Your task to perform on an android device: Clear all items from cart on bestbuy. Image 0: 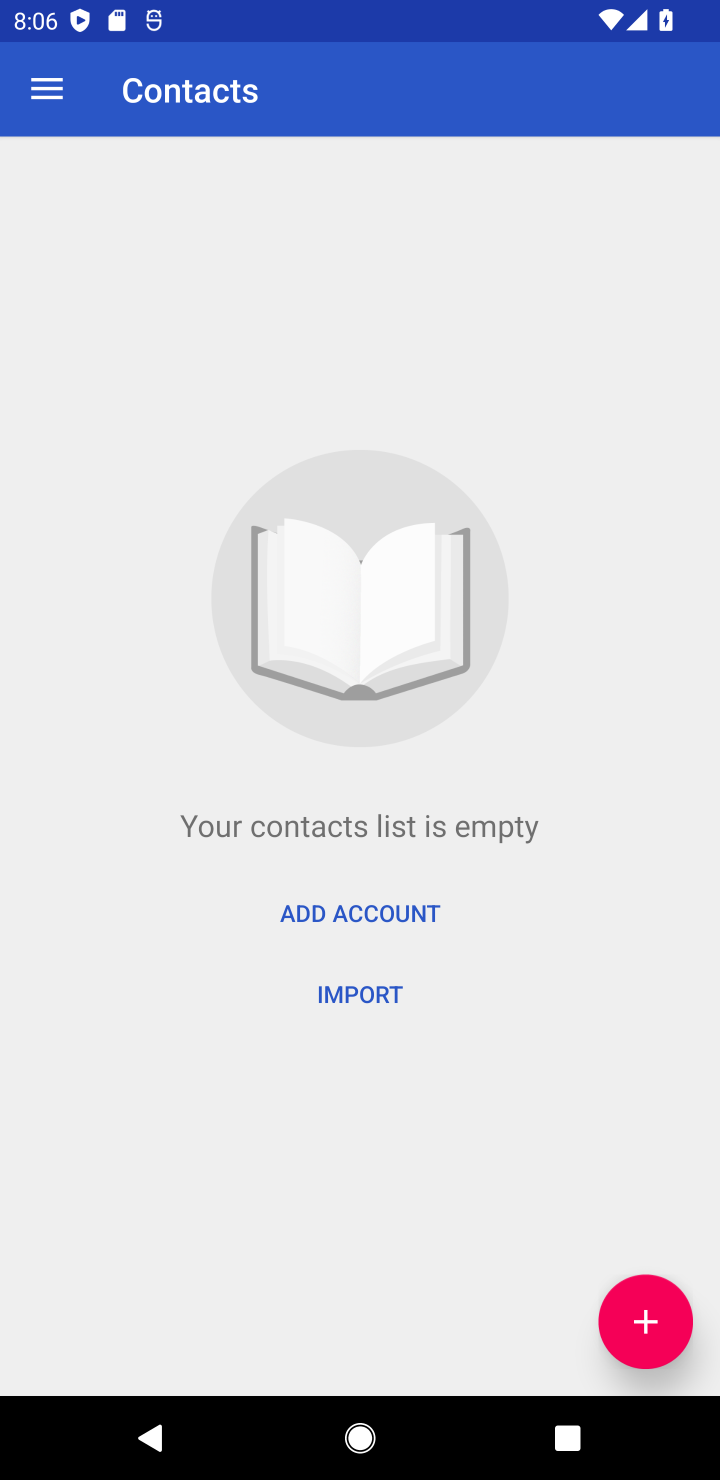
Step 0: press home button
Your task to perform on an android device: Clear all items from cart on bestbuy. Image 1: 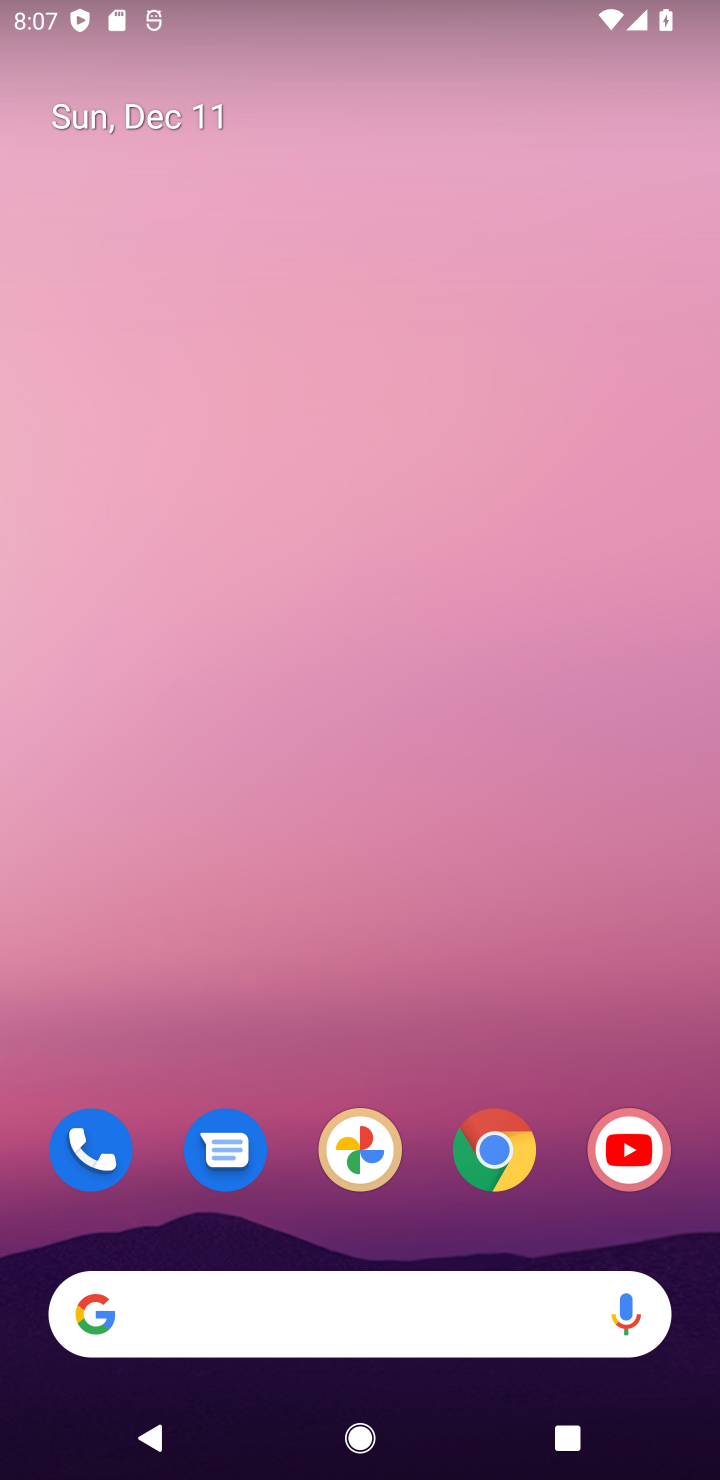
Step 1: click (498, 1150)
Your task to perform on an android device: Clear all items from cart on bestbuy. Image 2: 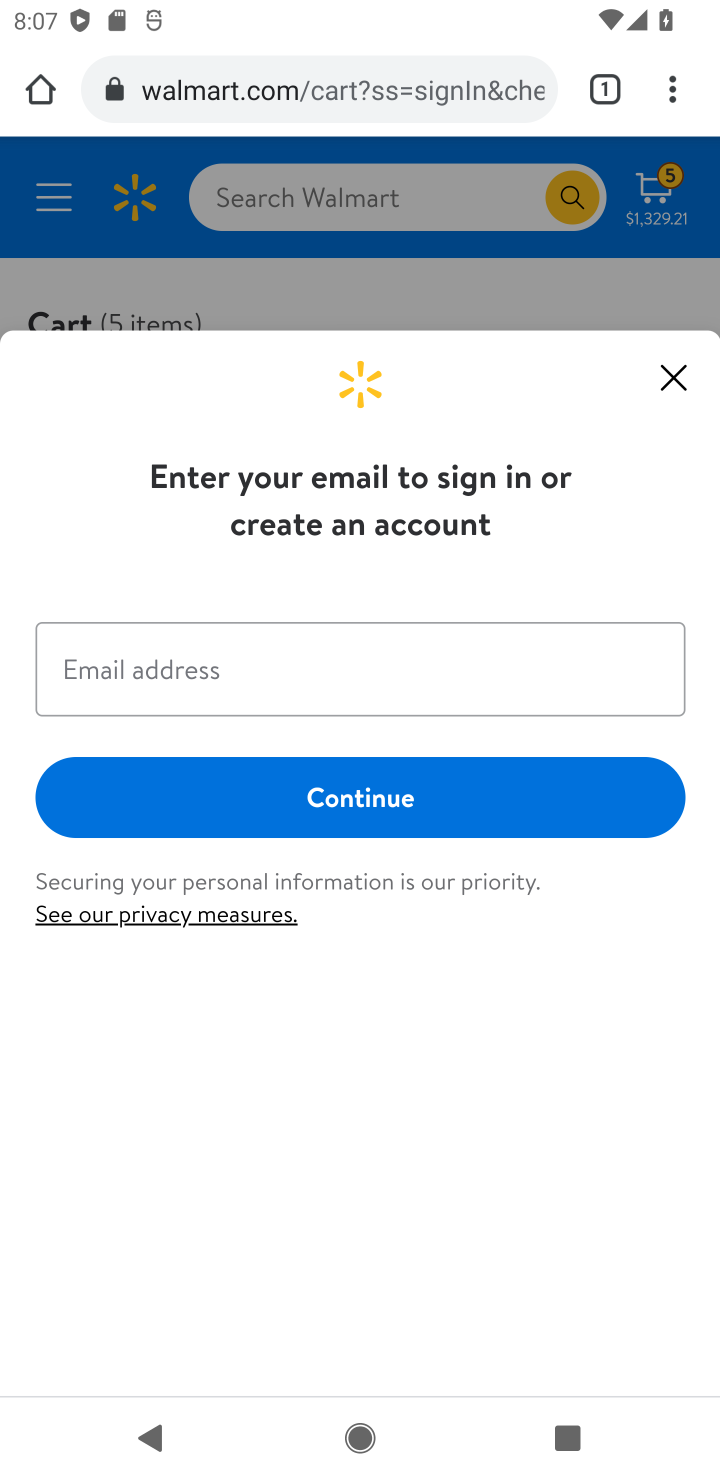
Step 2: click (474, 97)
Your task to perform on an android device: Clear all items from cart on bestbuy. Image 3: 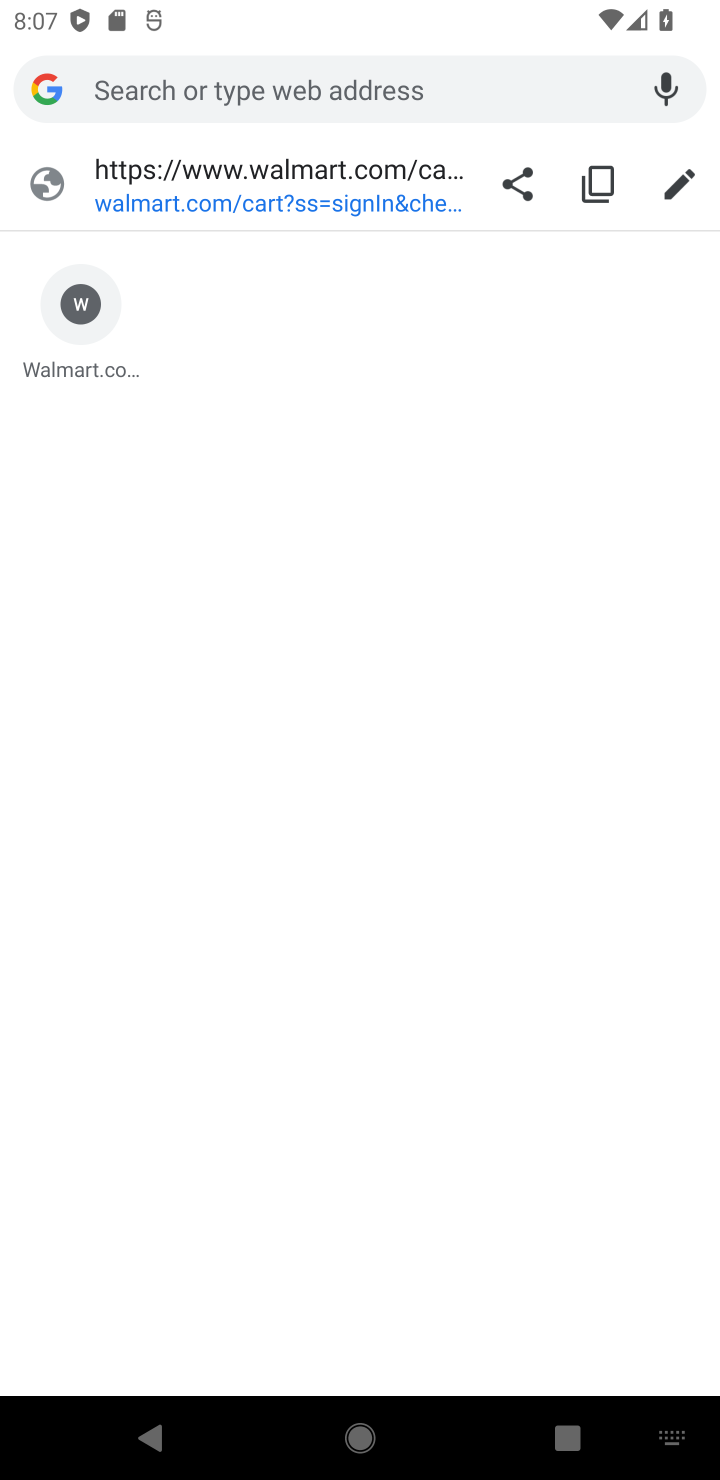
Step 3: type "bestbuy"
Your task to perform on an android device: Clear all items from cart on bestbuy. Image 4: 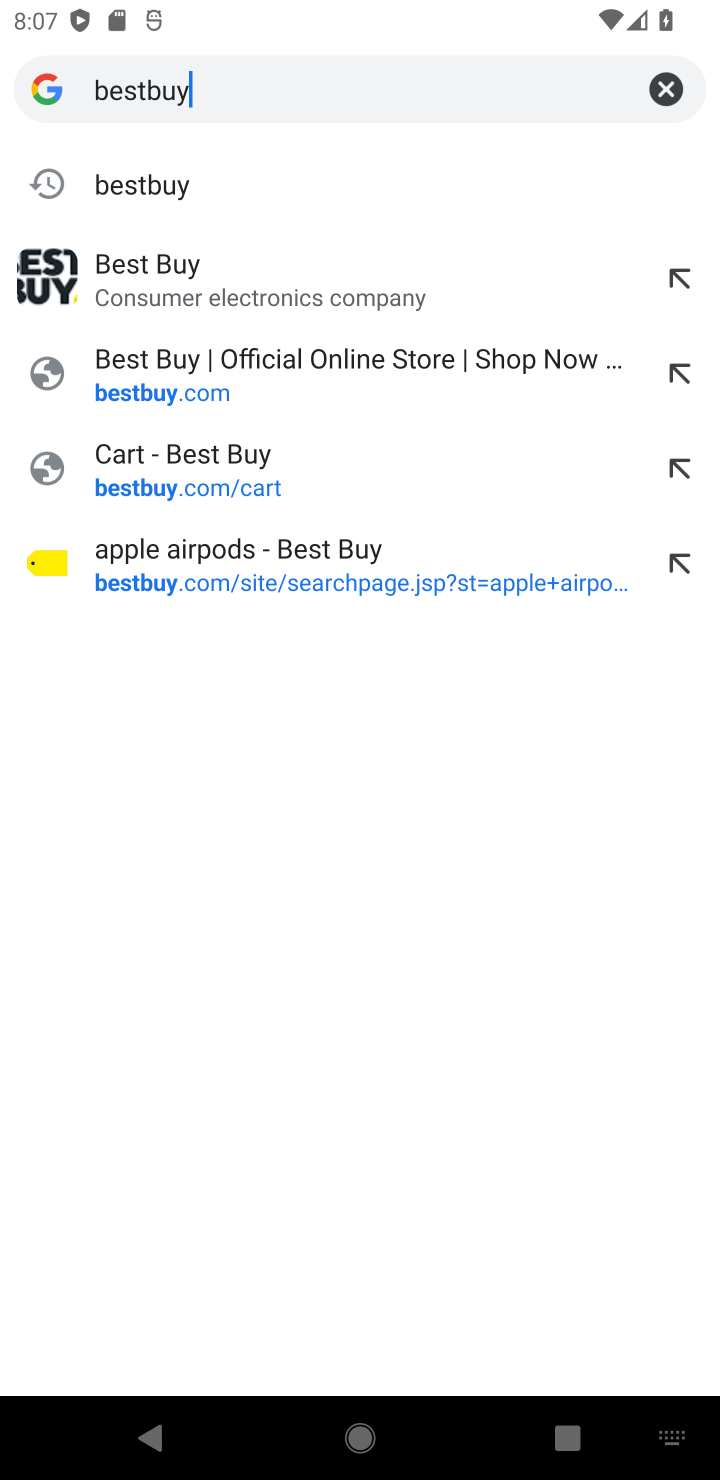
Step 4: click (124, 188)
Your task to perform on an android device: Clear all items from cart on bestbuy. Image 5: 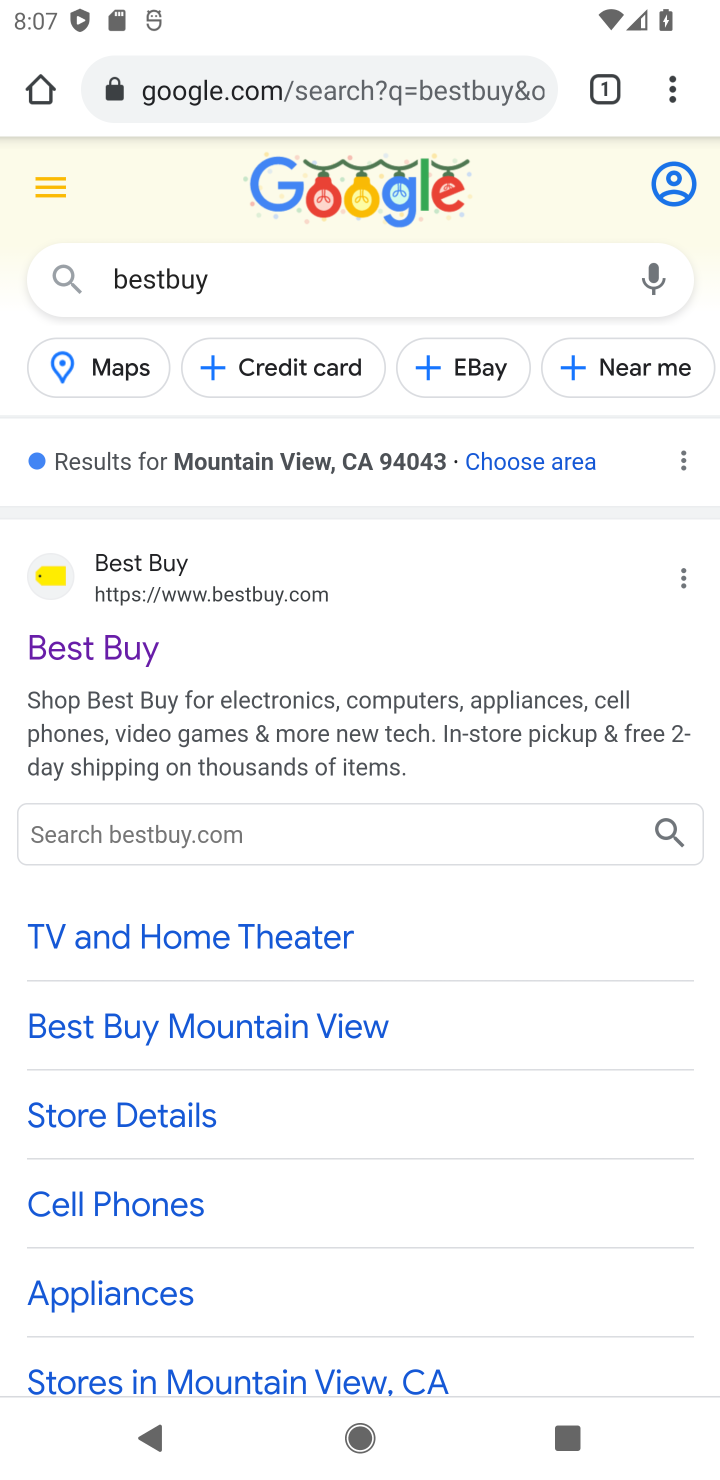
Step 5: click (121, 659)
Your task to perform on an android device: Clear all items from cart on bestbuy. Image 6: 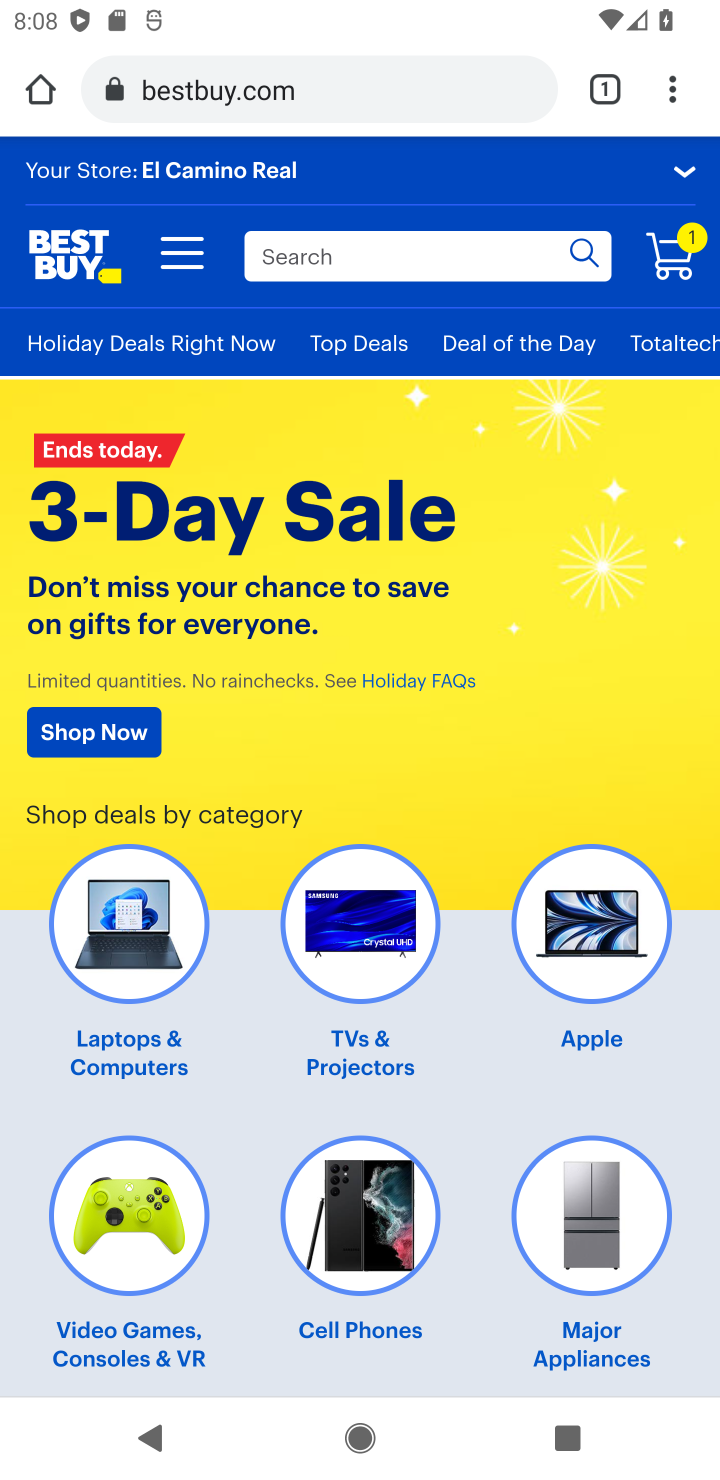
Step 6: click (682, 256)
Your task to perform on an android device: Clear all items from cart on bestbuy. Image 7: 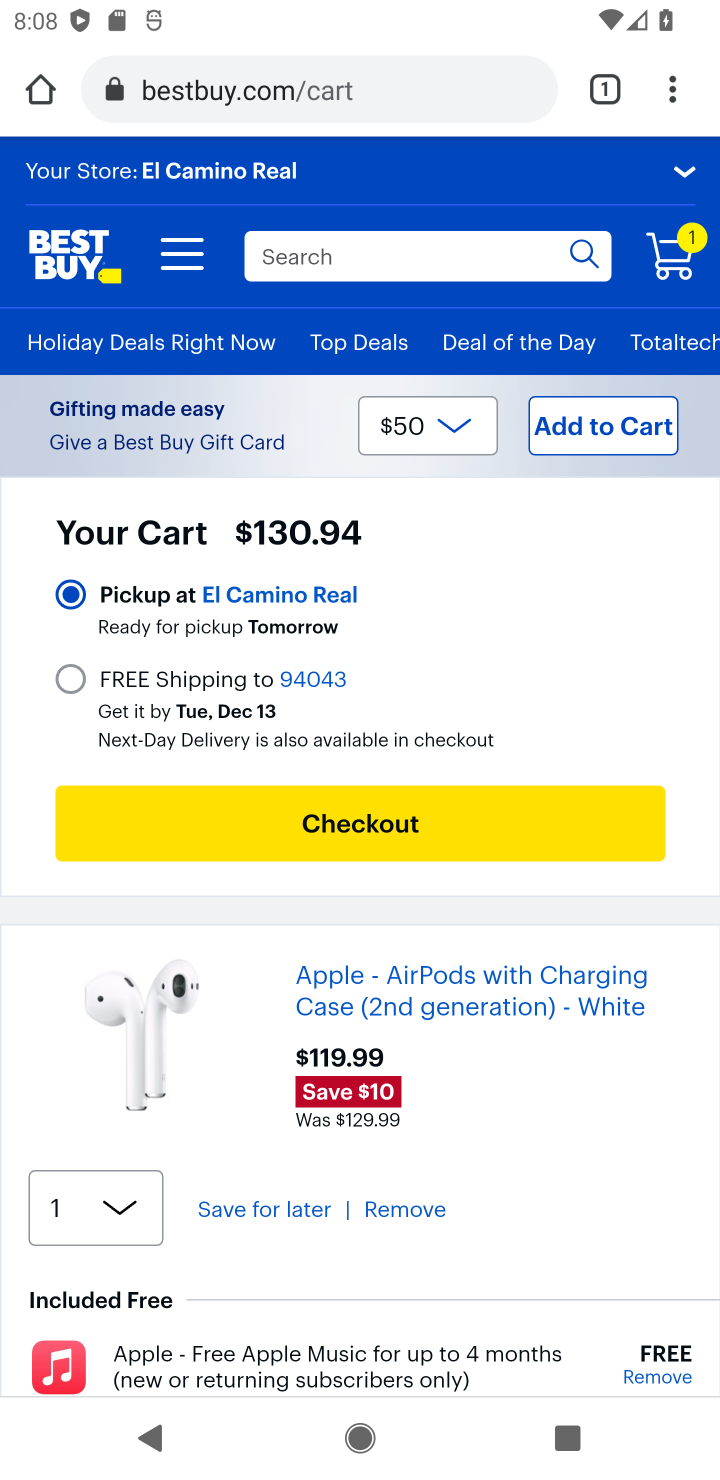
Step 7: click (395, 1214)
Your task to perform on an android device: Clear all items from cart on bestbuy. Image 8: 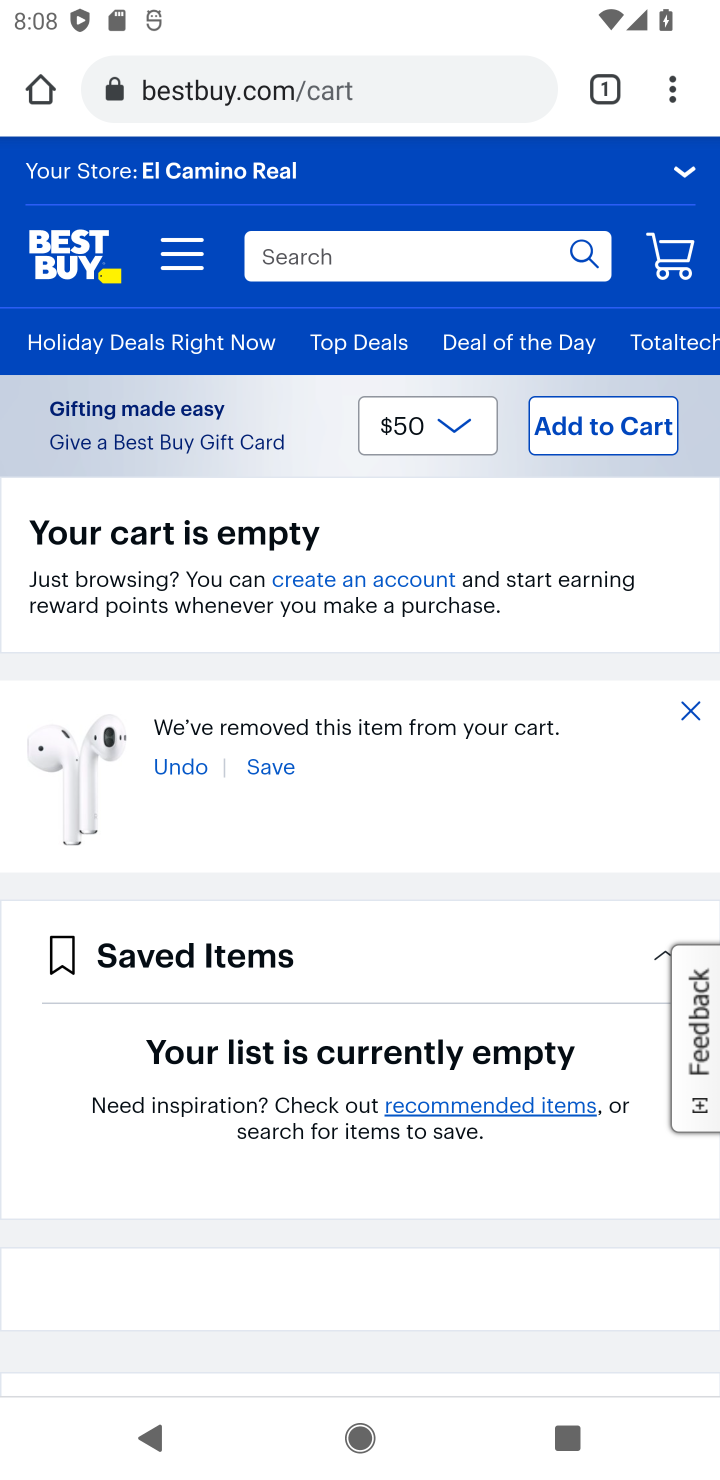
Step 8: task complete